Your task to perform on an android device: change notification settings in the gmail app Image 0: 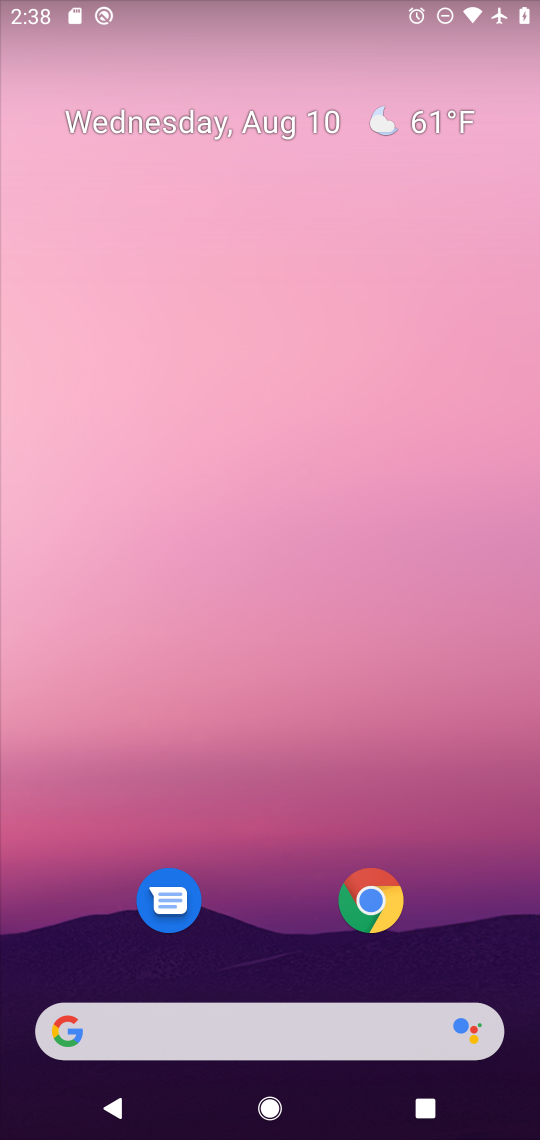
Step 0: drag from (295, 886) to (367, 0)
Your task to perform on an android device: change notification settings in the gmail app Image 1: 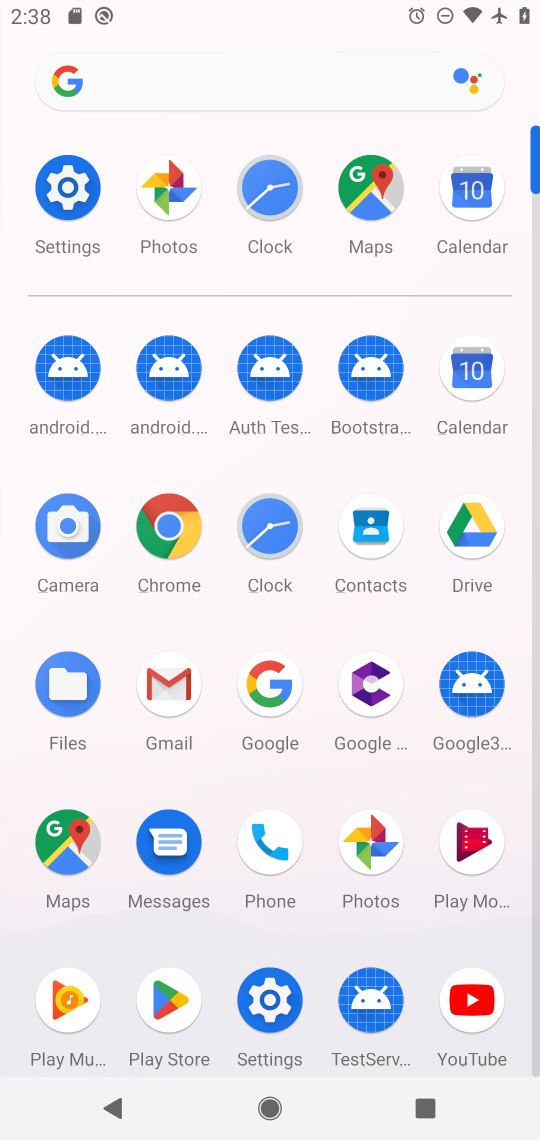
Step 1: click (177, 682)
Your task to perform on an android device: change notification settings in the gmail app Image 2: 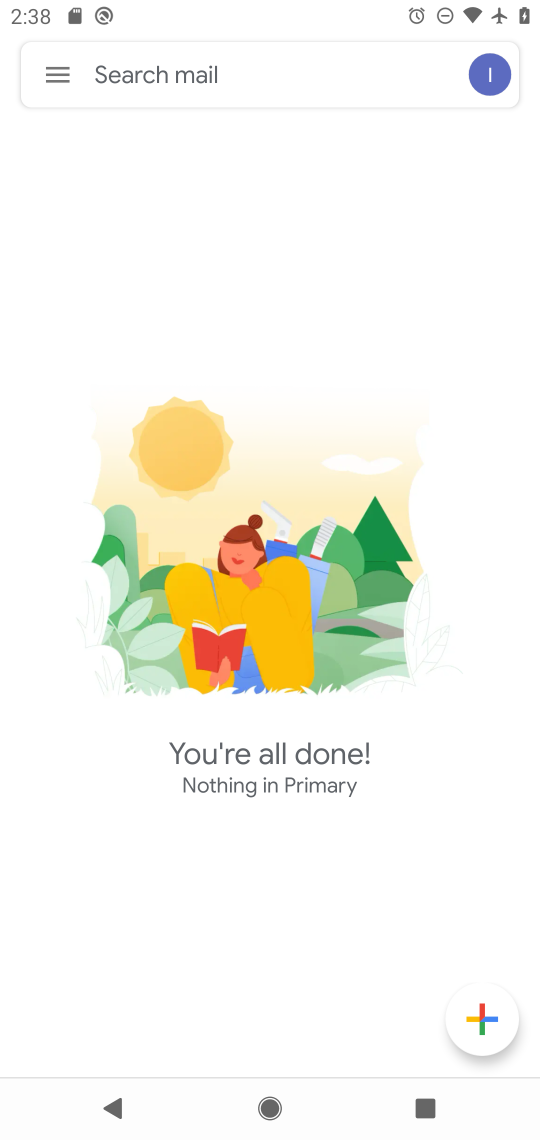
Step 2: click (53, 70)
Your task to perform on an android device: change notification settings in the gmail app Image 3: 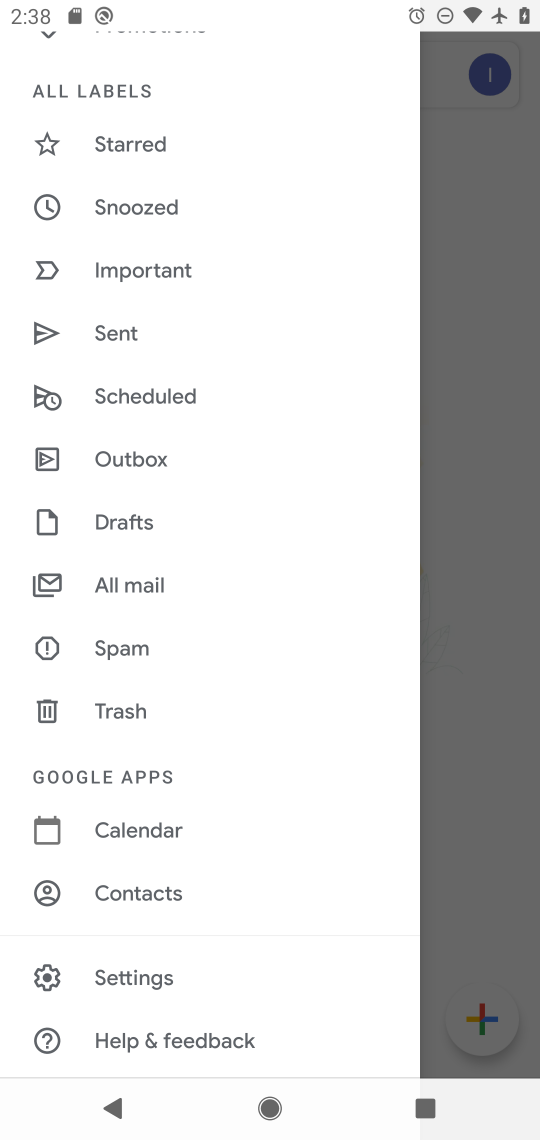
Step 3: click (146, 967)
Your task to perform on an android device: change notification settings in the gmail app Image 4: 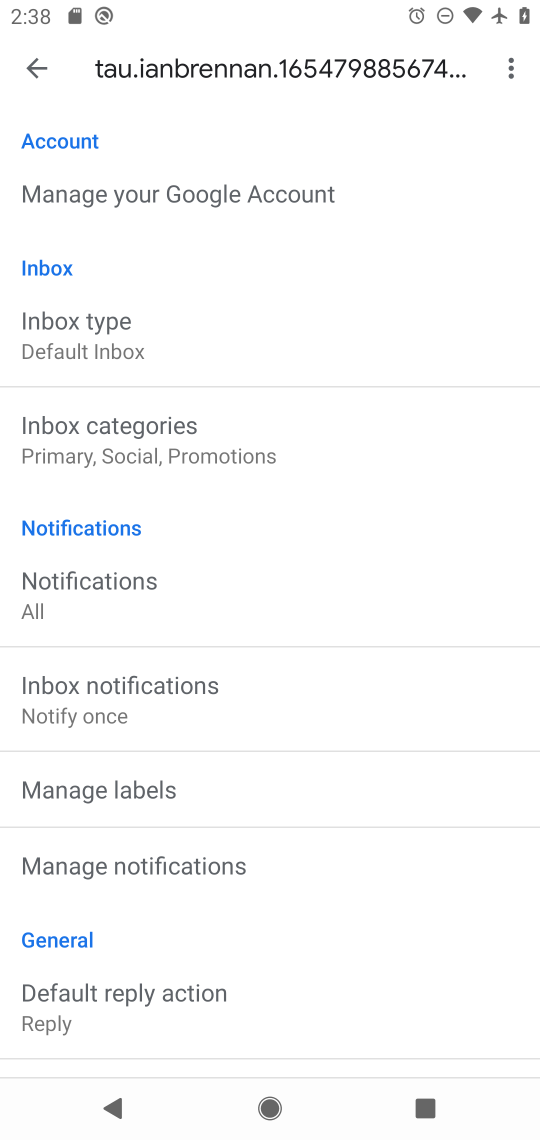
Step 4: click (254, 867)
Your task to perform on an android device: change notification settings in the gmail app Image 5: 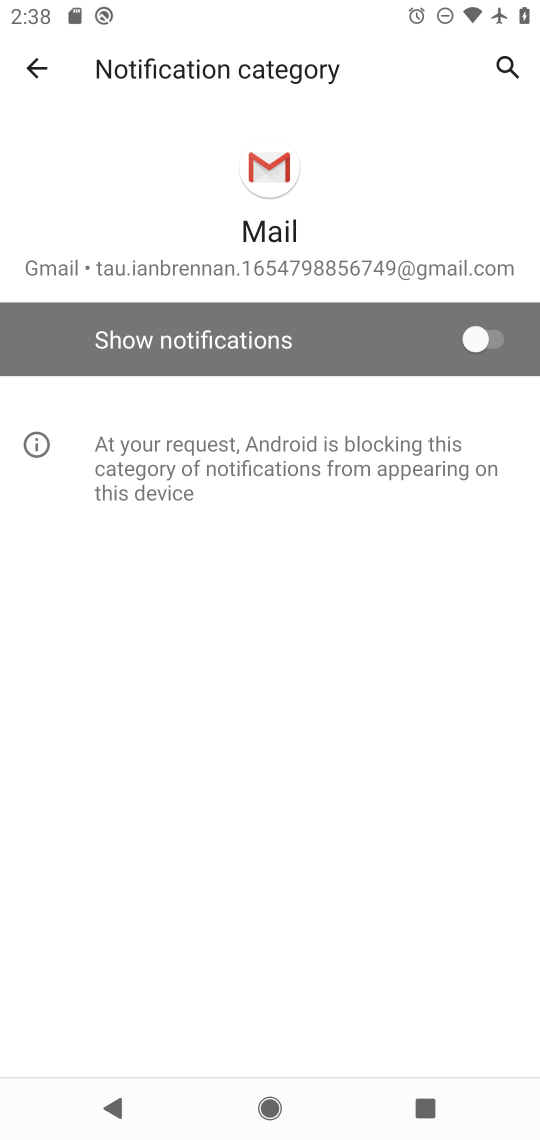
Step 5: click (474, 333)
Your task to perform on an android device: change notification settings in the gmail app Image 6: 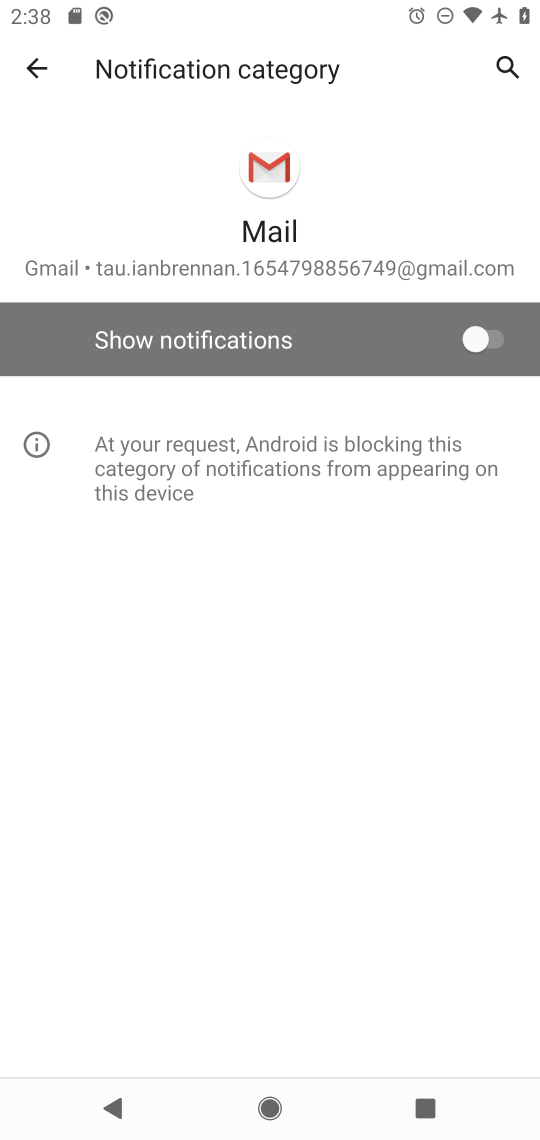
Step 6: click (483, 327)
Your task to perform on an android device: change notification settings in the gmail app Image 7: 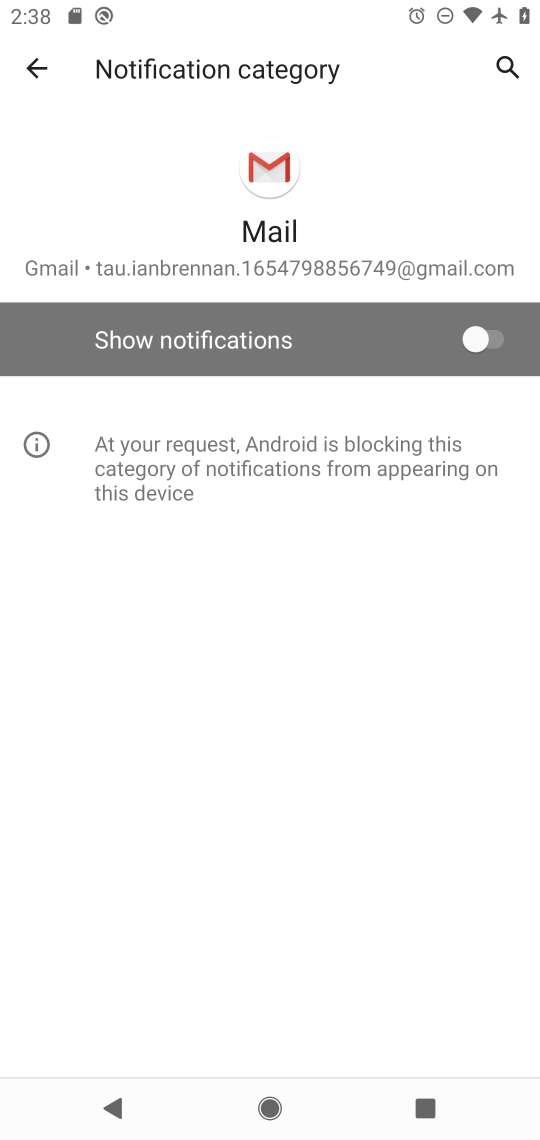
Step 7: click (495, 341)
Your task to perform on an android device: change notification settings in the gmail app Image 8: 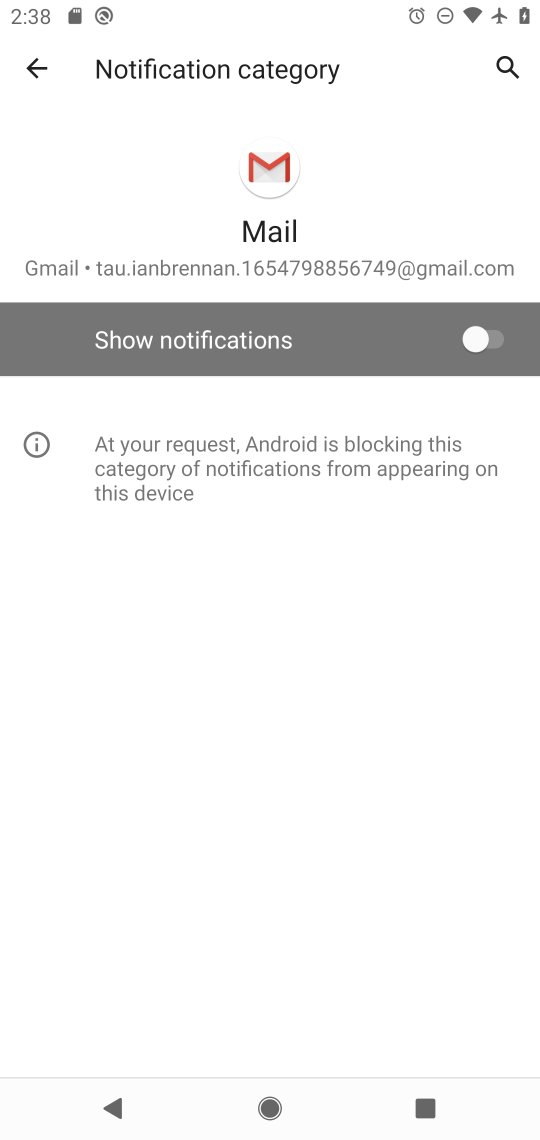
Step 8: click (495, 336)
Your task to perform on an android device: change notification settings in the gmail app Image 9: 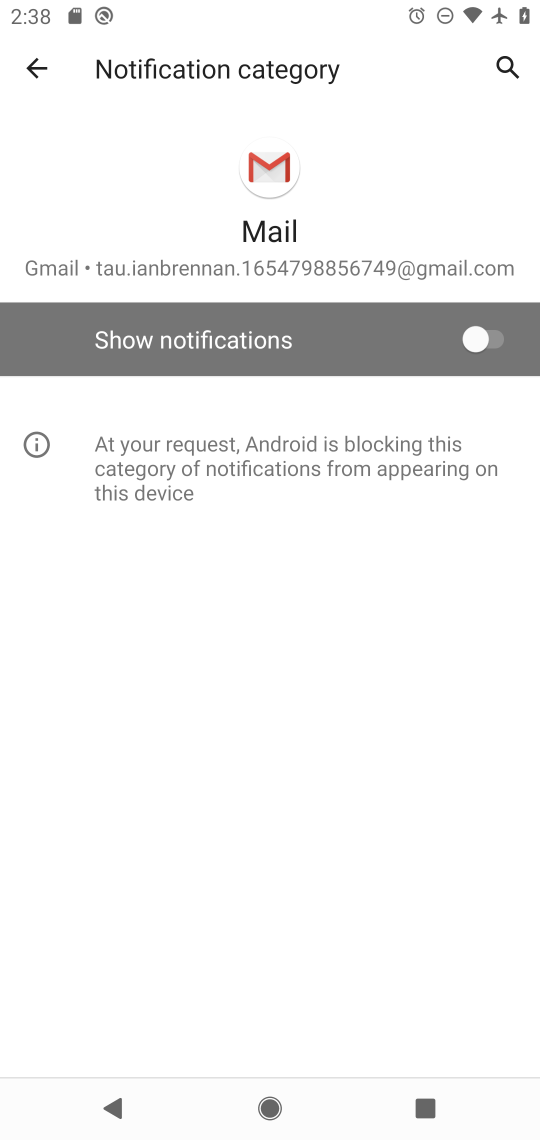
Step 9: click (40, 56)
Your task to perform on an android device: change notification settings in the gmail app Image 10: 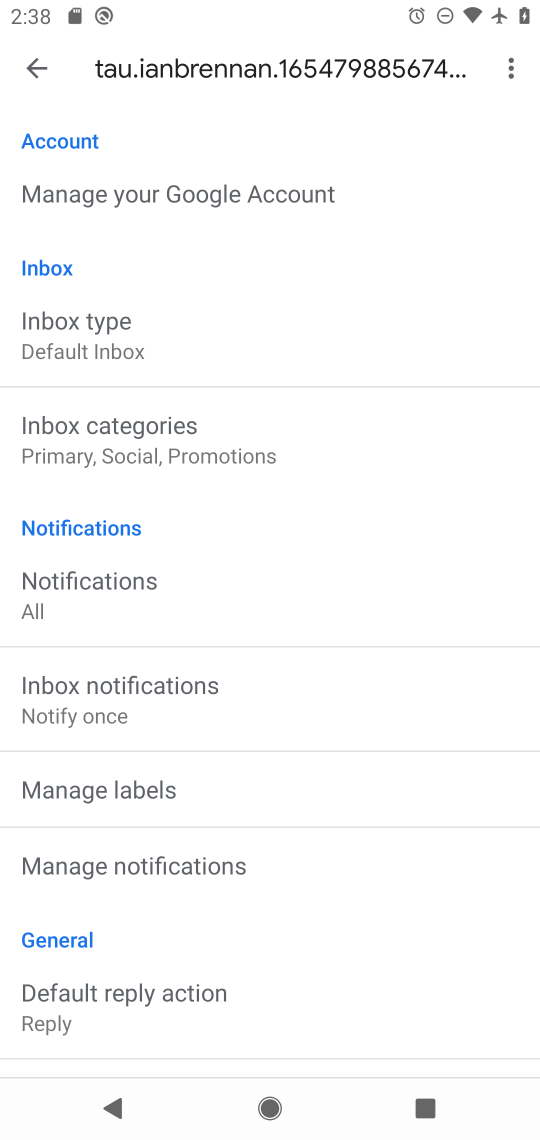
Step 10: click (38, 61)
Your task to perform on an android device: change notification settings in the gmail app Image 11: 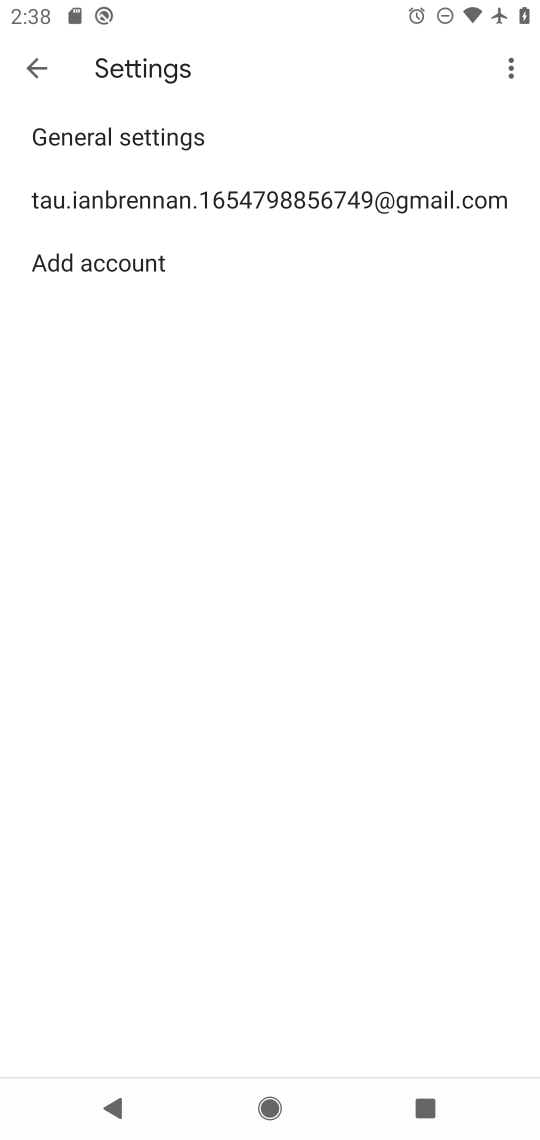
Step 11: click (130, 139)
Your task to perform on an android device: change notification settings in the gmail app Image 12: 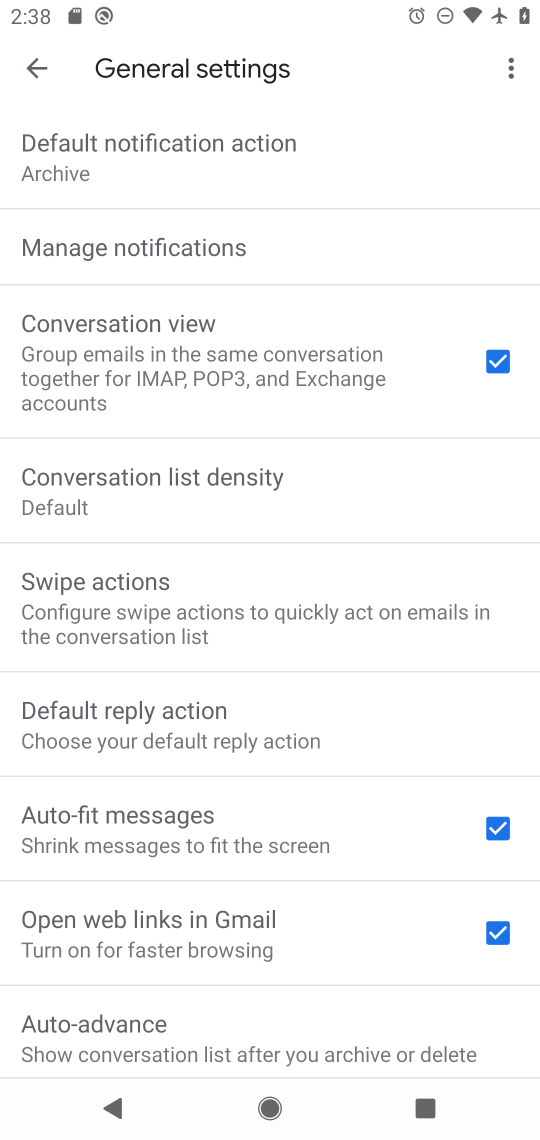
Step 12: click (306, 247)
Your task to perform on an android device: change notification settings in the gmail app Image 13: 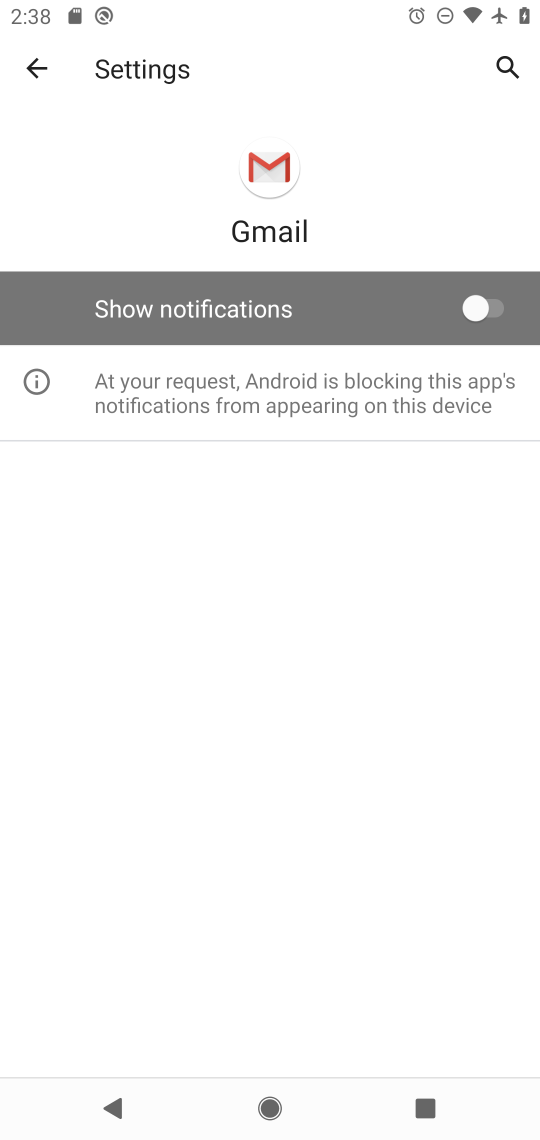
Step 13: click (479, 309)
Your task to perform on an android device: change notification settings in the gmail app Image 14: 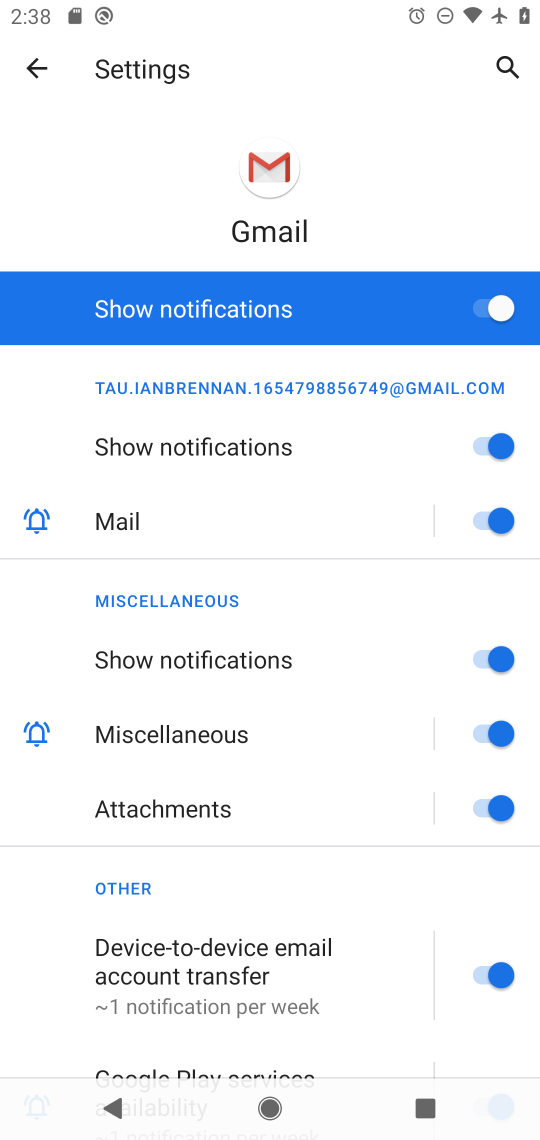
Step 14: task complete